Your task to perform on an android device: Go to Wikipedia Image 0: 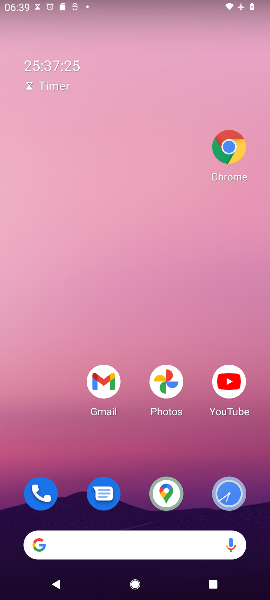
Step 0: press home button
Your task to perform on an android device: Go to Wikipedia Image 1: 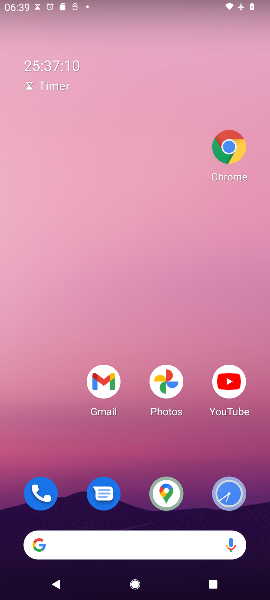
Step 1: click (35, 554)
Your task to perform on an android device: Go to Wikipedia Image 2: 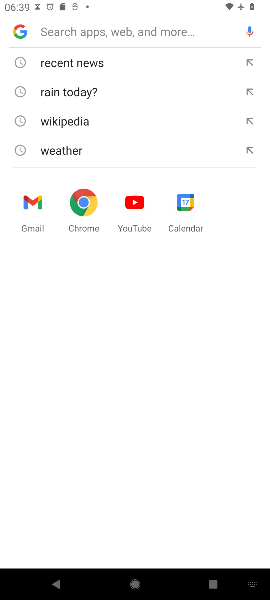
Step 2: click (61, 120)
Your task to perform on an android device: Go to Wikipedia Image 3: 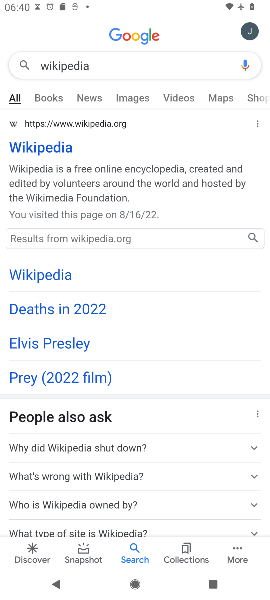
Step 3: click (36, 148)
Your task to perform on an android device: Go to Wikipedia Image 4: 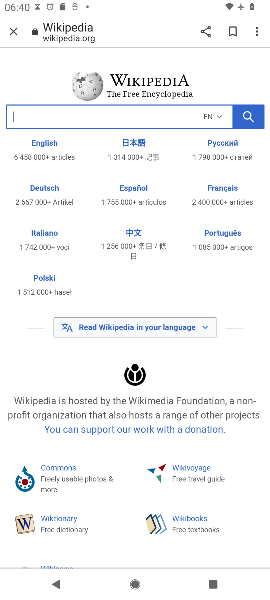
Step 4: task complete